Your task to perform on an android device: turn off smart reply in the gmail app Image 0: 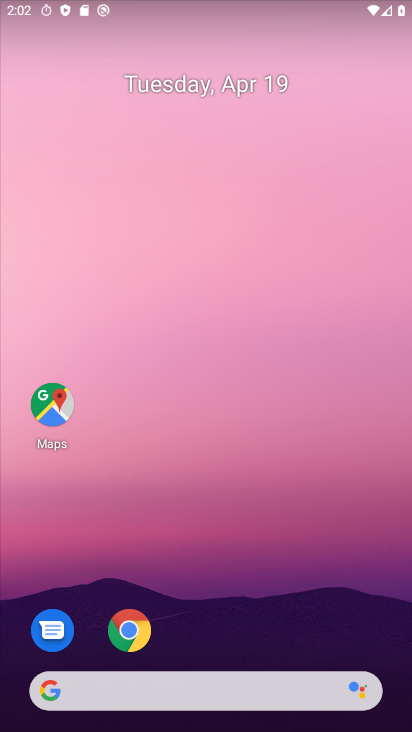
Step 0: drag from (230, 550) to (295, 62)
Your task to perform on an android device: turn off smart reply in the gmail app Image 1: 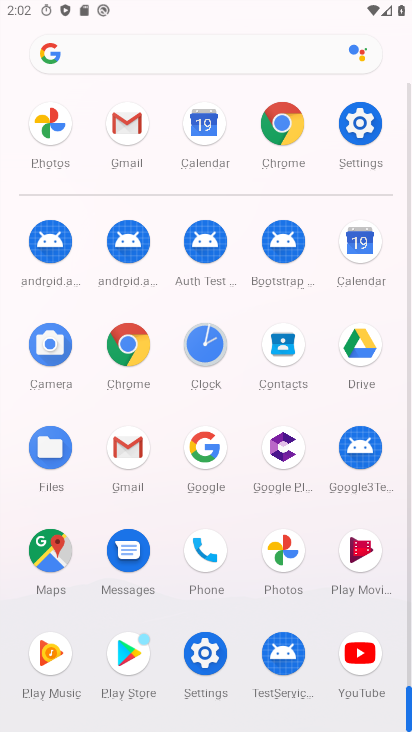
Step 1: click (135, 128)
Your task to perform on an android device: turn off smart reply in the gmail app Image 2: 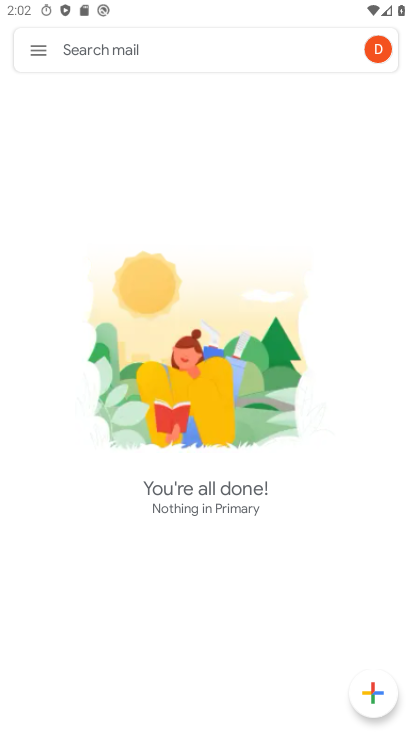
Step 2: click (43, 47)
Your task to perform on an android device: turn off smart reply in the gmail app Image 3: 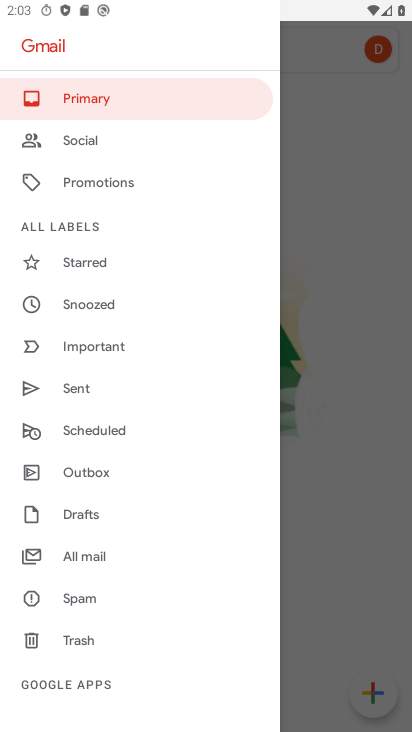
Step 3: drag from (146, 593) to (191, 192)
Your task to perform on an android device: turn off smart reply in the gmail app Image 4: 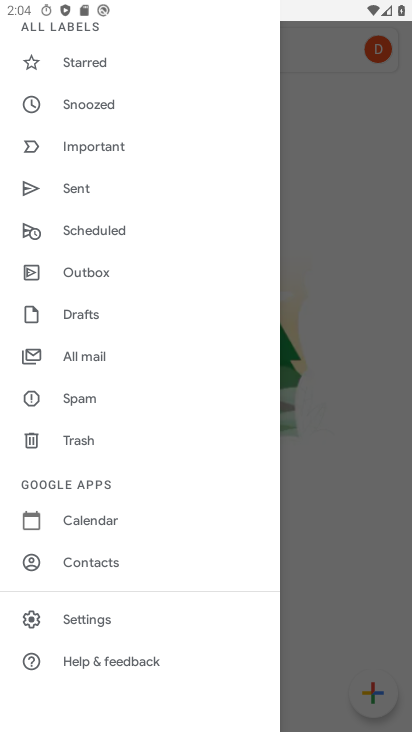
Step 4: click (91, 610)
Your task to perform on an android device: turn off smart reply in the gmail app Image 5: 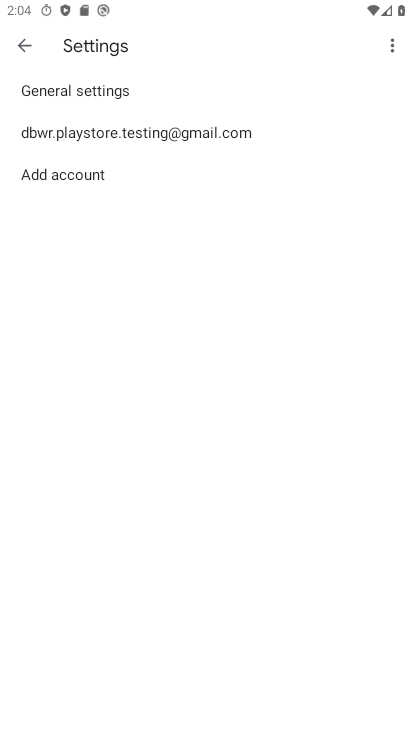
Step 5: click (135, 127)
Your task to perform on an android device: turn off smart reply in the gmail app Image 6: 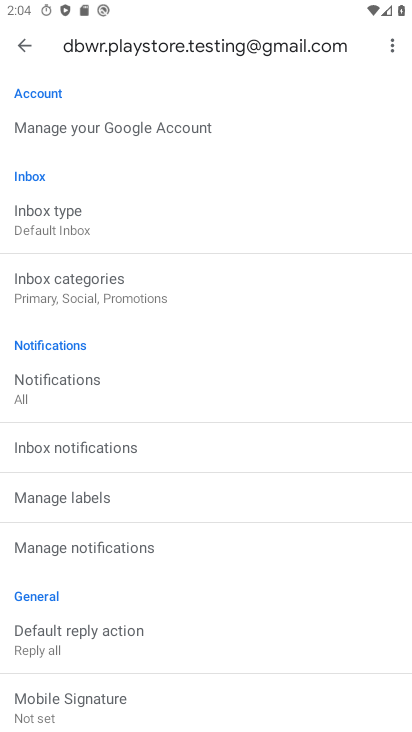
Step 6: drag from (217, 643) to (213, 260)
Your task to perform on an android device: turn off smart reply in the gmail app Image 7: 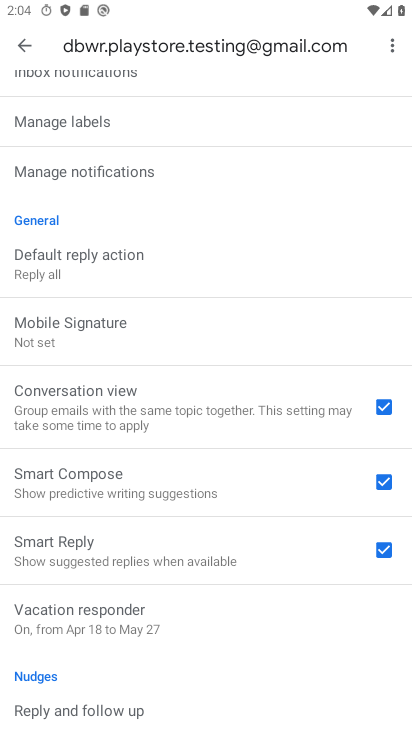
Step 7: click (384, 548)
Your task to perform on an android device: turn off smart reply in the gmail app Image 8: 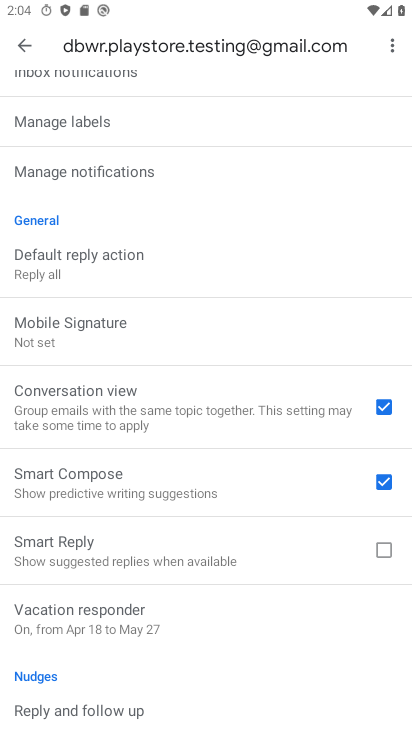
Step 8: task complete